Your task to perform on an android device: turn pop-ups off in chrome Image 0: 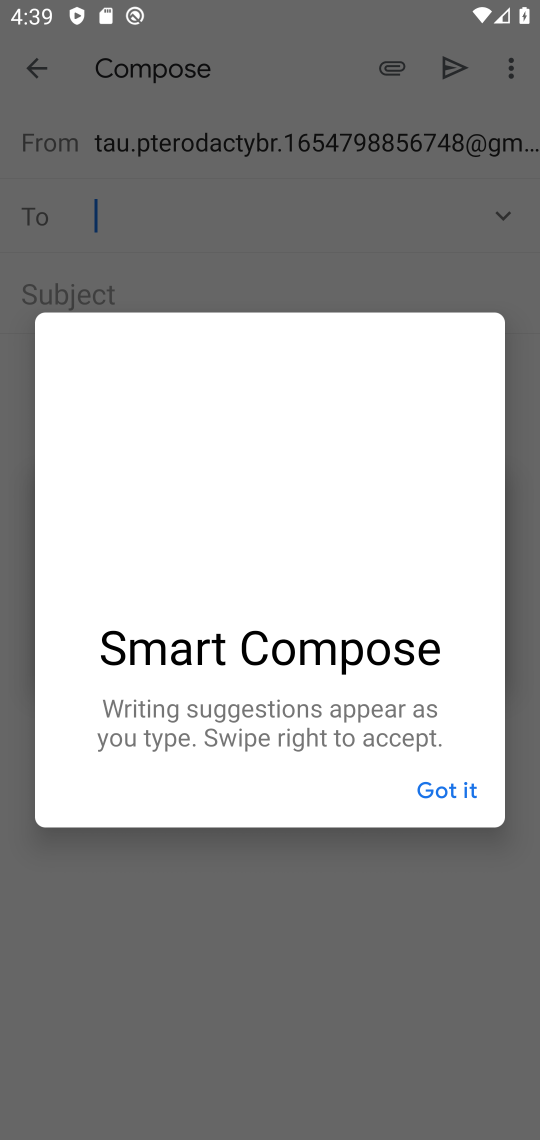
Step 0: press home button
Your task to perform on an android device: turn pop-ups off in chrome Image 1: 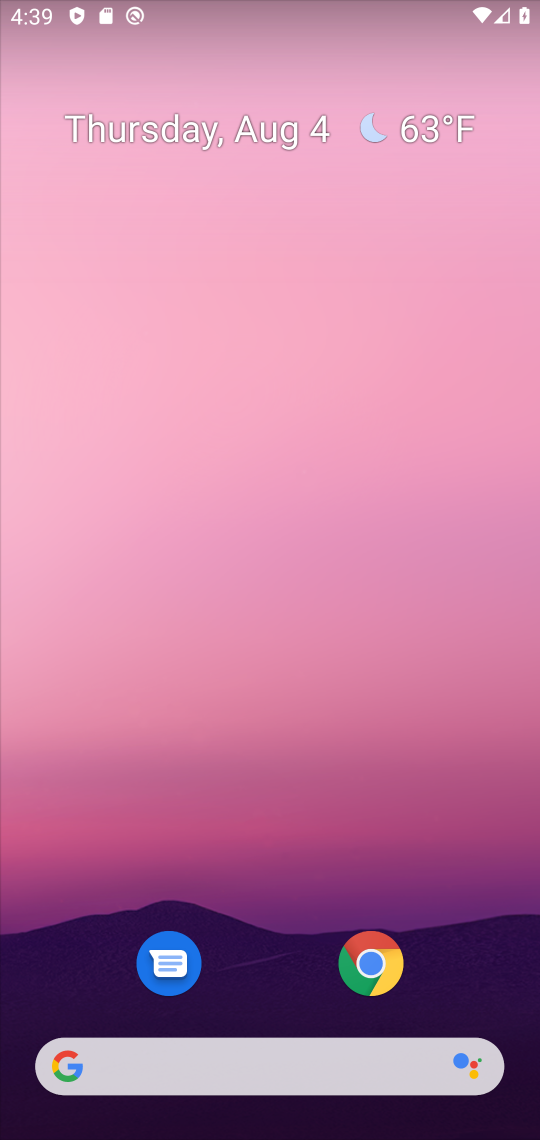
Step 1: click (375, 963)
Your task to perform on an android device: turn pop-ups off in chrome Image 2: 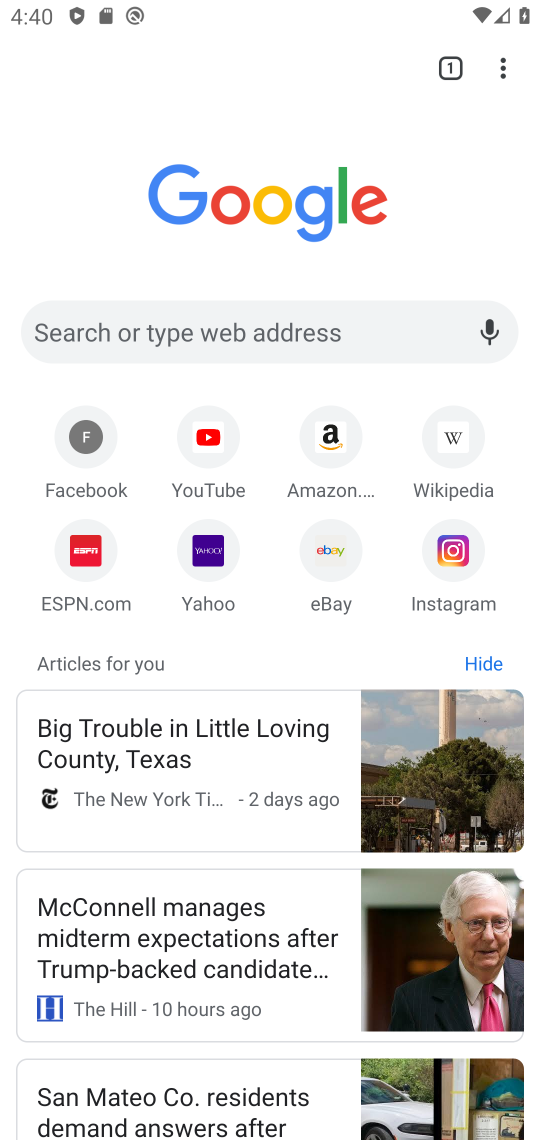
Step 2: click (499, 68)
Your task to perform on an android device: turn pop-ups off in chrome Image 3: 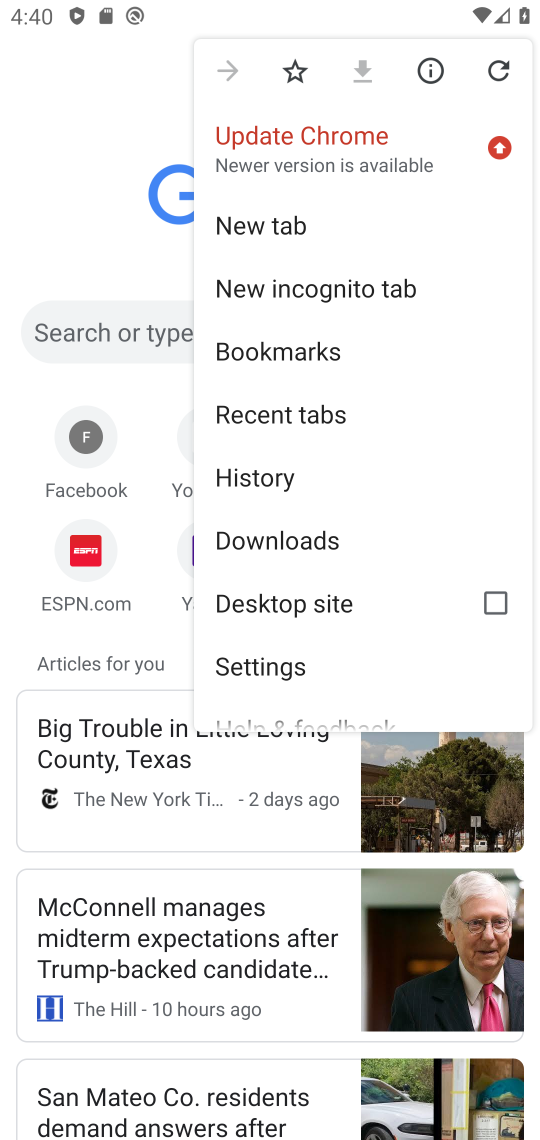
Step 3: click (273, 665)
Your task to perform on an android device: turn pop-ups off in chrome Image 4: 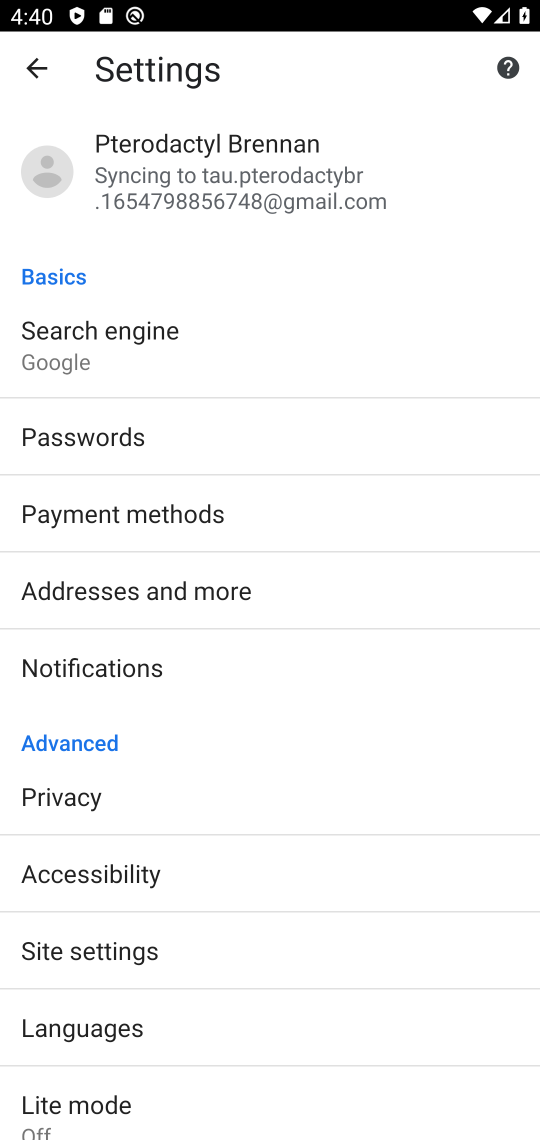
Step 4: click (112, 947)
Your task to perform on an android device: turn pop-ups off in chrome Image 5: 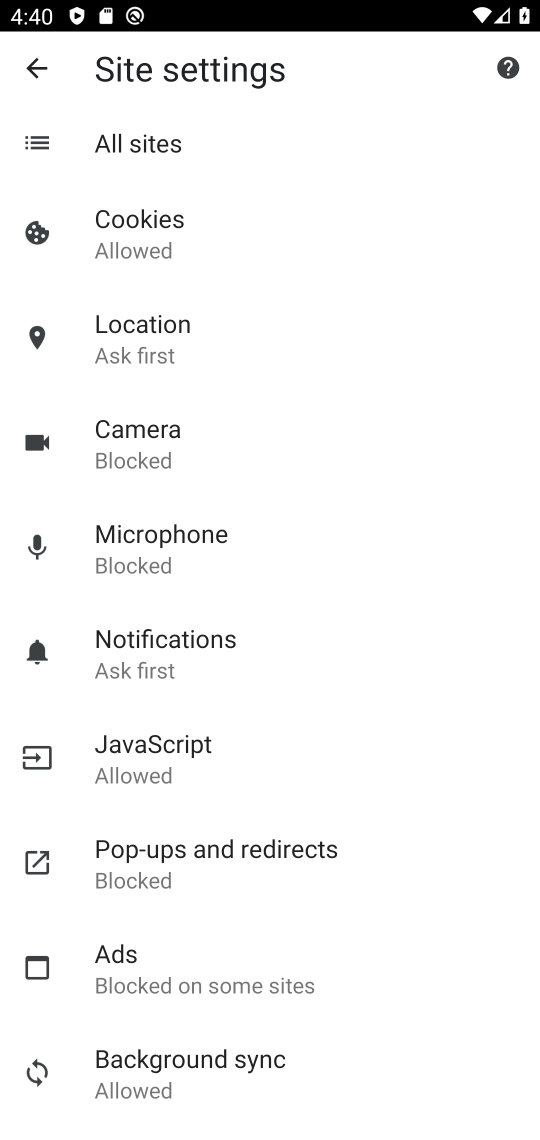
Step 5: click (213, 841)
Your task to perform on an android device: turn pop-ups off in chrome Image 6: 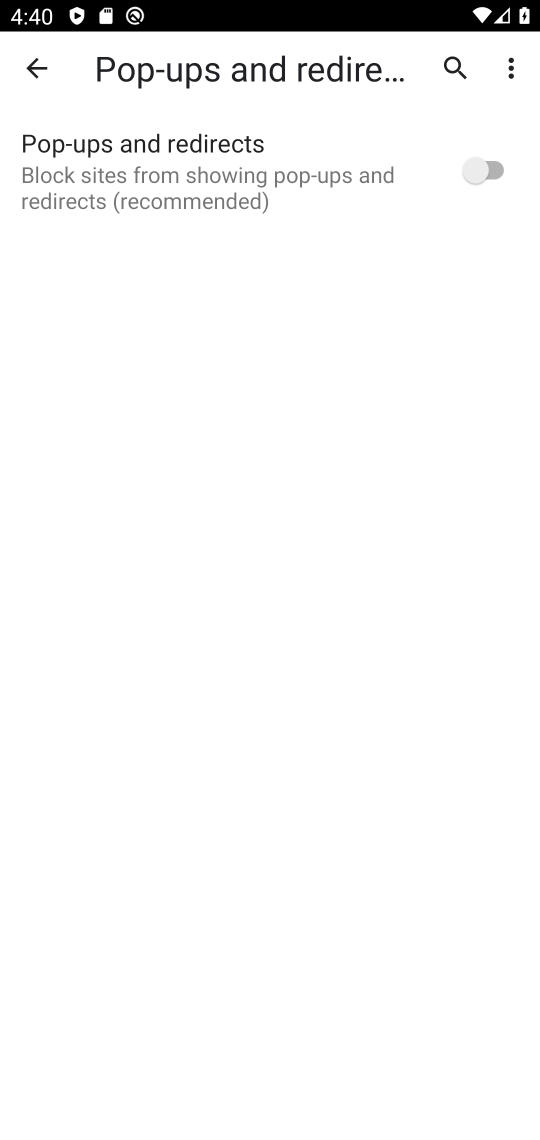
Step 6: task complete